Your task to perform on an android device: find which apps use the phone's location Image 0: 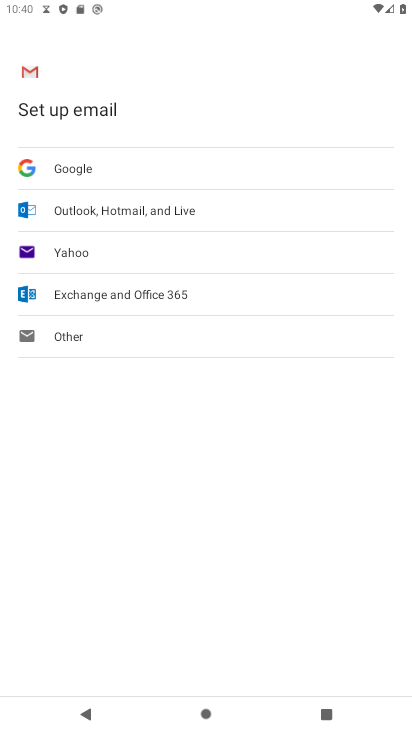
Step 0: press home button
Your task to perform on an android device: find which apps use the phone's location Image 1: 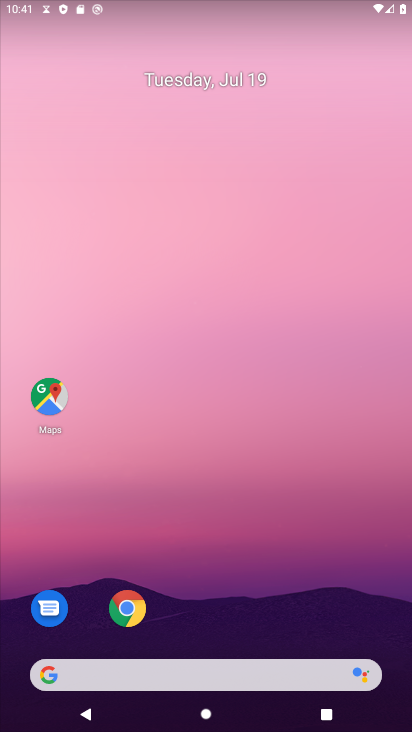
Step 1: drag from (246, 587) to (257, 186)
Your task to perform on an android device: find which apps use the phone's location Image 2: 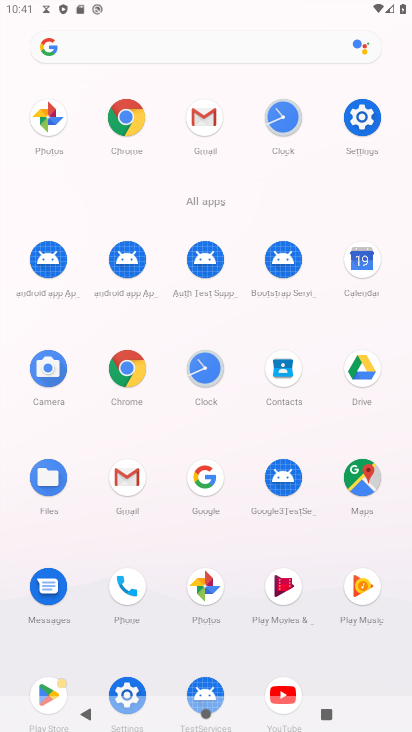
Step 2: click (353, 124)
Your task to perform on an android device: find which apps use the phone's location Image 3: 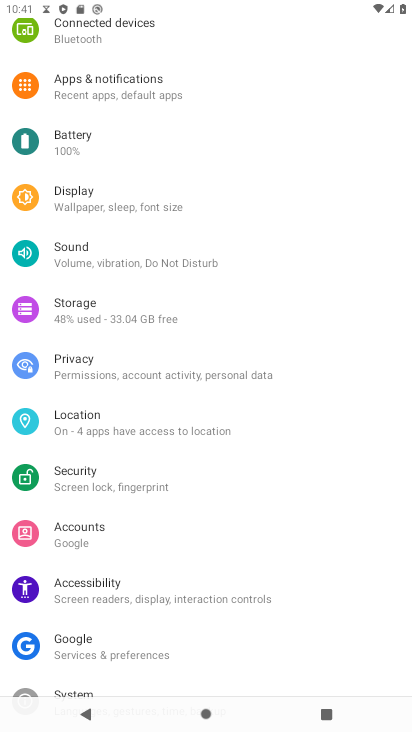
Step 3: click (114, 423)
Your task to perform on an android device: find which apps use the phone's location Image 4: 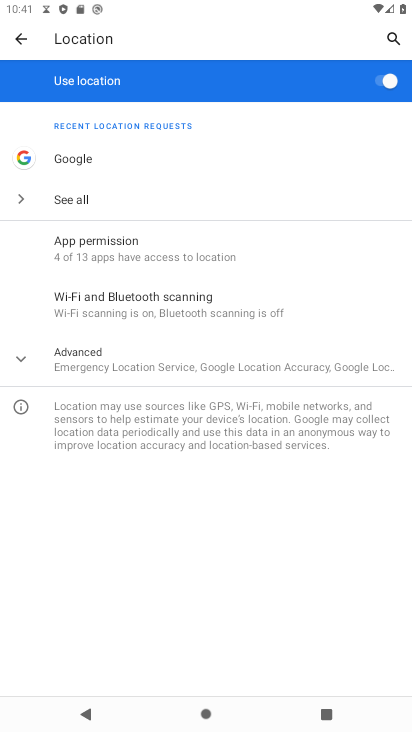
Step 4: click (127, 253)
Your task to perform on an android device: find which apps use the phone's location Image 5: 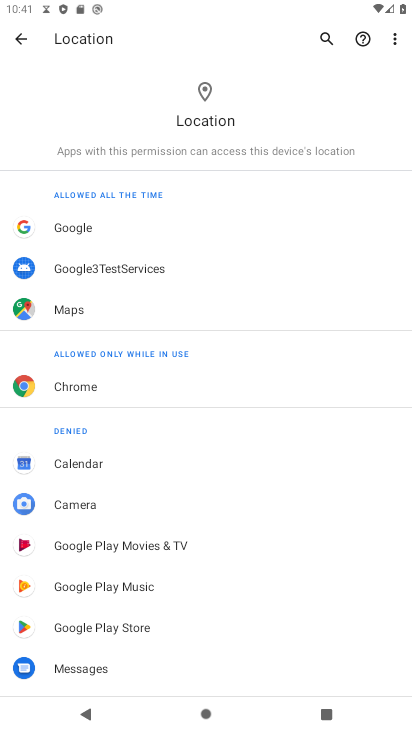
Step 5: task complete